Your task to perform on an android device: turn off translation in the chrome app Image 0: 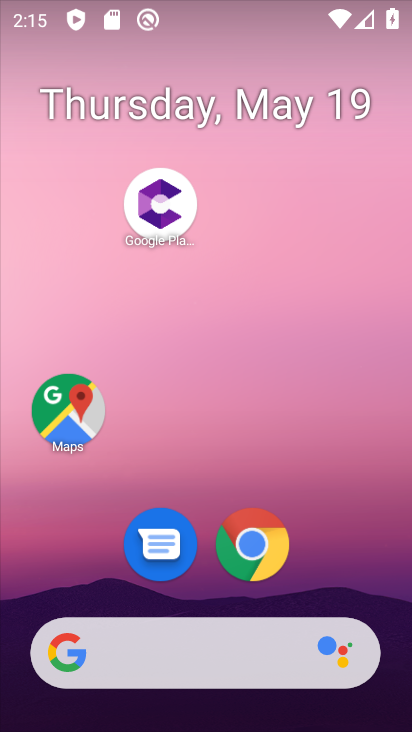
Step 0: drag from (296, 688) to (207, 151)
Your task to perform on an android device: turn off translation in the chrome app Image 1: 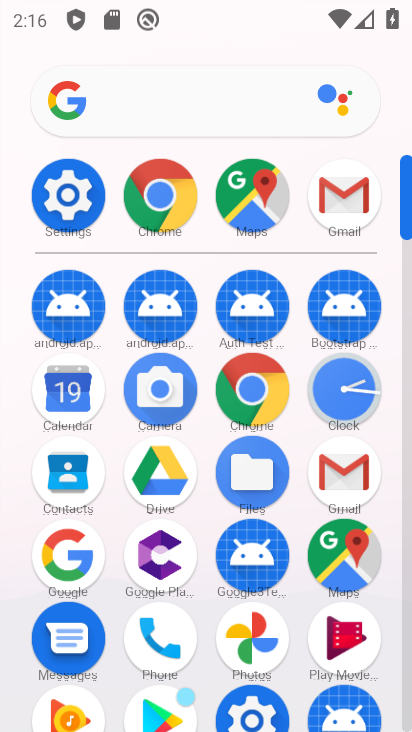
Step 1: click (157, 208)
Your task to perform on an android device: turn off translation in the chrome app Image 2: 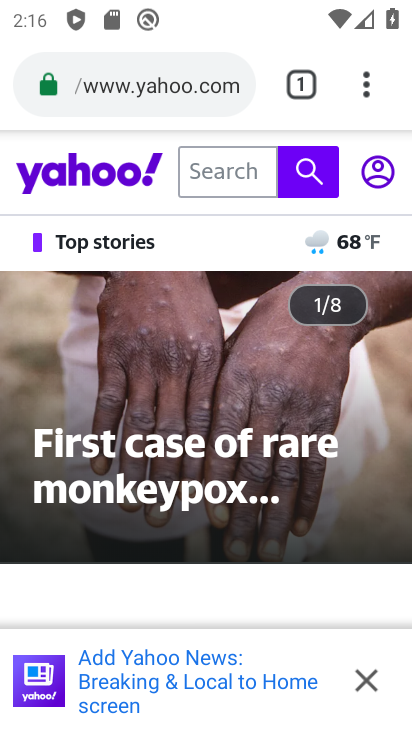
Step 2: click (366, 86)
Your task to perform on an android device: turn off translation in the chrome app Image 3: 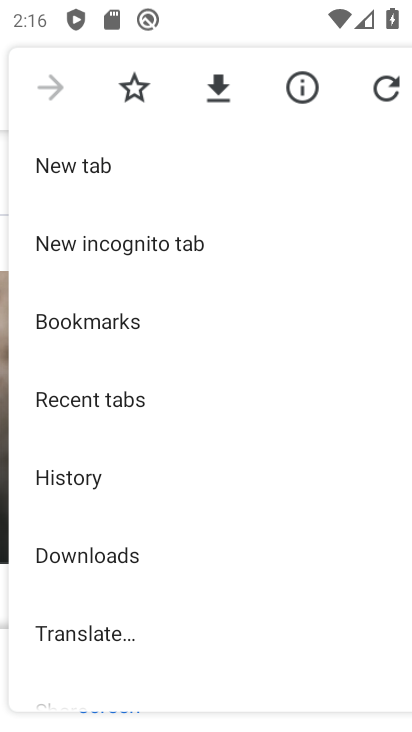
Step 3: drag from (153, 501) to (216, 251)
Your task to perform on an android device: turn off translation in the chrome app Image 4: 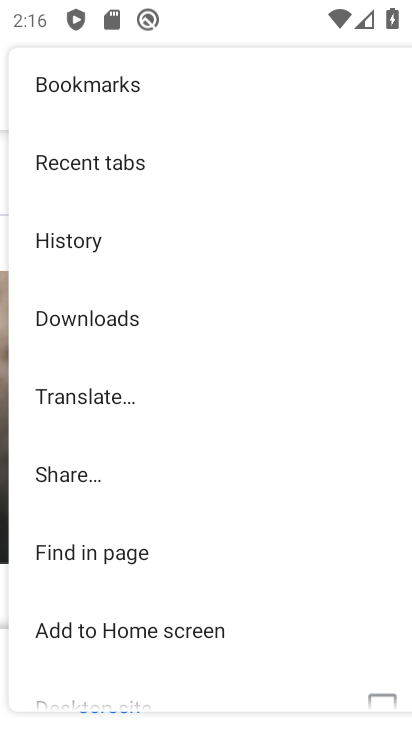
Step 4: drag from (98, 548) to (179, 345)
Your task to perform on an android device: turn off translation in the chrome app Image 5: 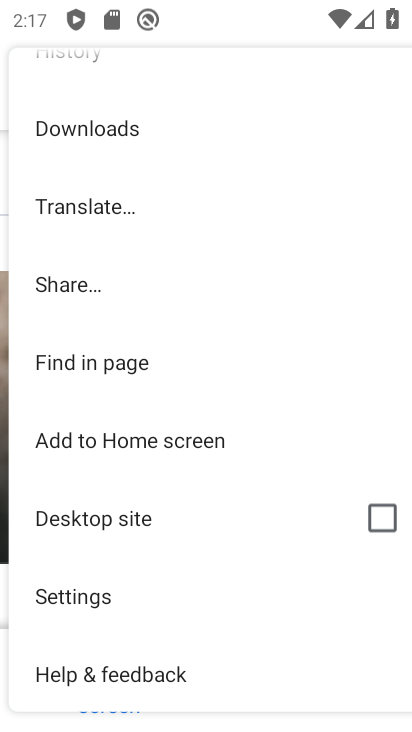
Step 5: click (143, 593)
Your task to perform on an android device: turn off translation in the chrome app Image 6: 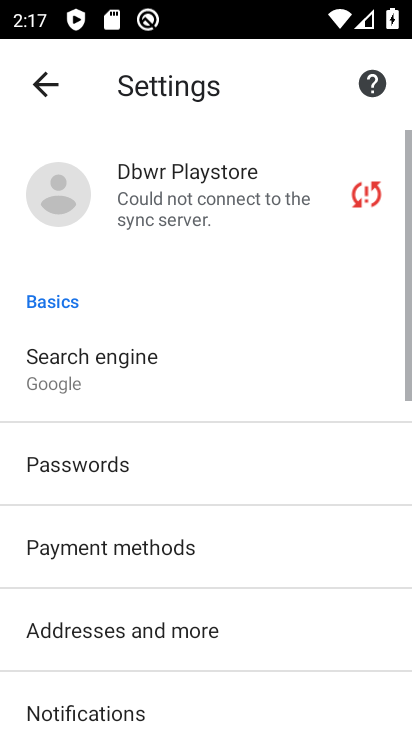
Step 6: drag from (149, 597) to (220, 414)
Your task to perform on an android device: turn off translation in the chrome app Image 7: 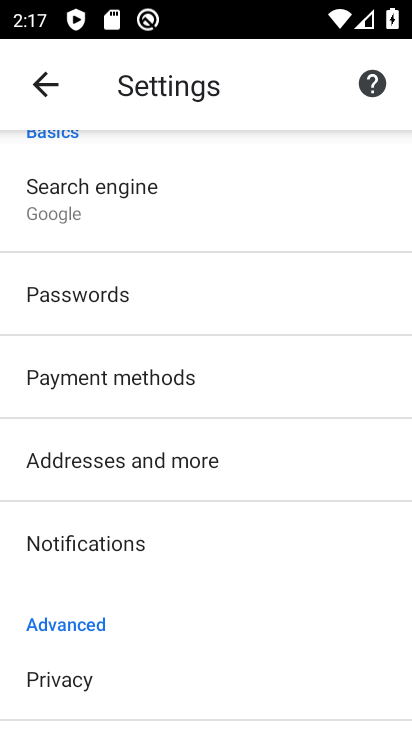
Step 7: drag from (138, 632) to (171, 386)
Your task to perform on an android device: turn off translation in the chrome app Image 8: 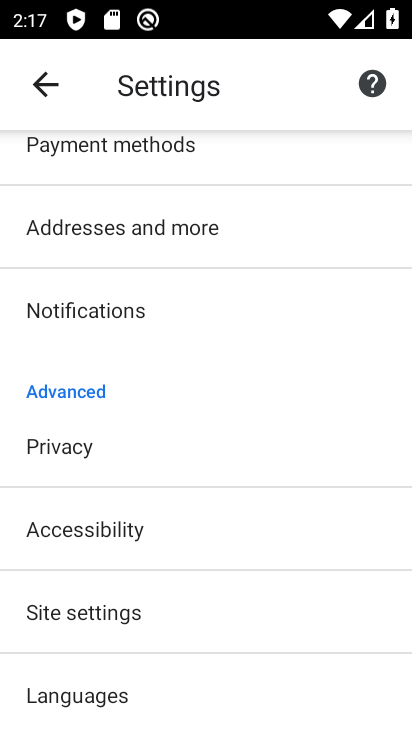
Step 8: drag from (100, 585) to (135, 456)
Your task to perform on an android device: turn off translation in the chrome app Image 9: 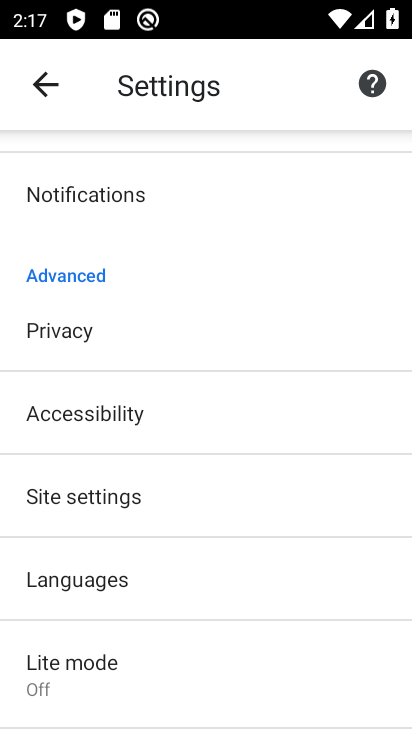
Step 9: click (92, 501)
Your task to perform on an android device: turn off translation in the chrome app Image 10: 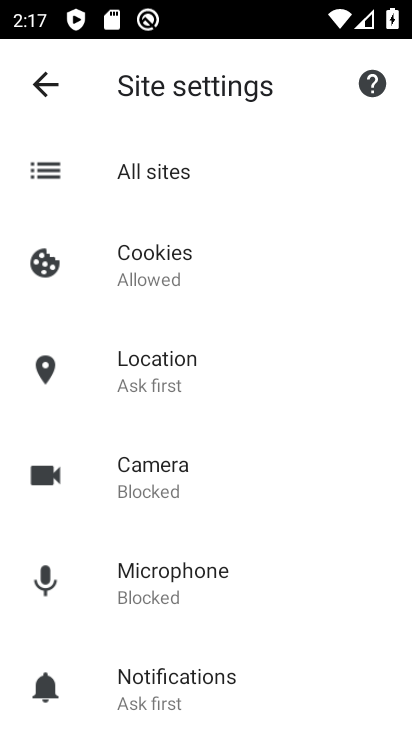
Step 10: drag from (172, 576) to (220, 357)
Your task to perform on an android device: turn off translation in the chrome app Image 11: 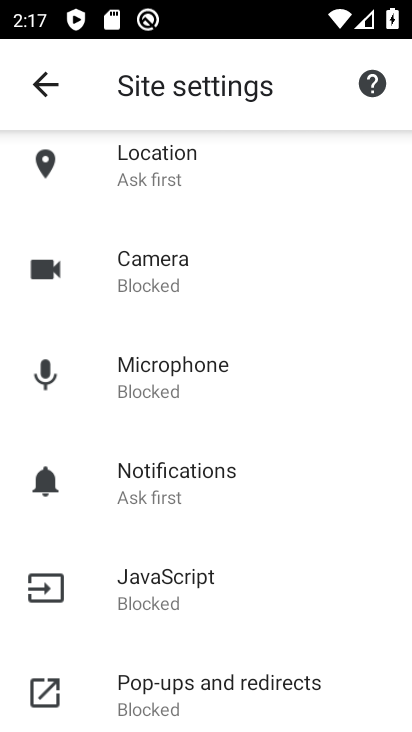
Step 11: drag from (189, 603) to (223, 448)
Your task to perform on an android device: turn off translation in the chrome app Image 12: 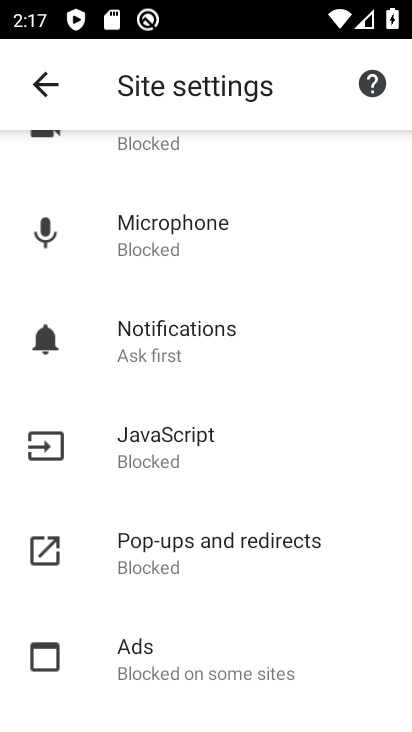
Step 12: drag from (179, 577) to (222, 408)
Your task to perform on an android device: turn off translation in the chrome app Image 13: 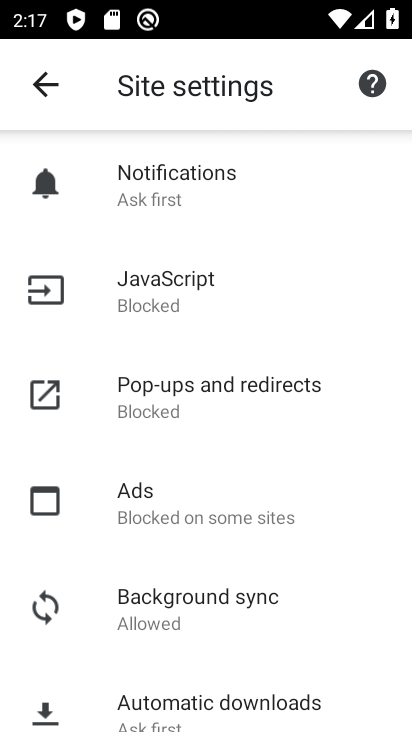
Step 13: drag from (186, 283) to (175, 439)
Your task to perform on an android device: turn off translation in the chrome app Image 14: 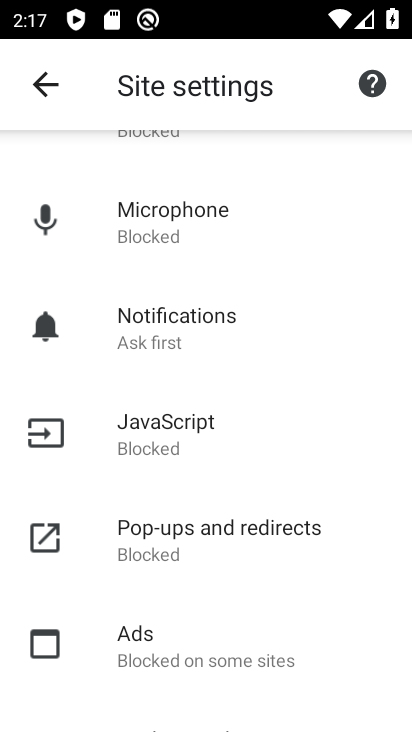
Step 14: click (36, 89)
Your task to perform on an android device: turn off translation in the chrome app Image 15: 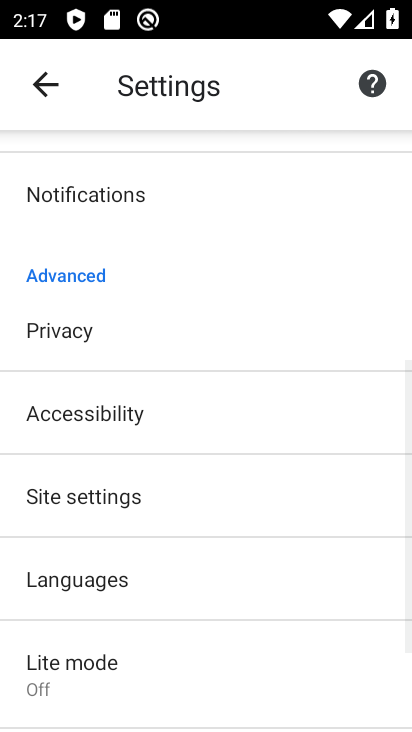
Step 15: click (102, 569)
Your task to perform on an android device: turn off translation in the chrome app Image 16: 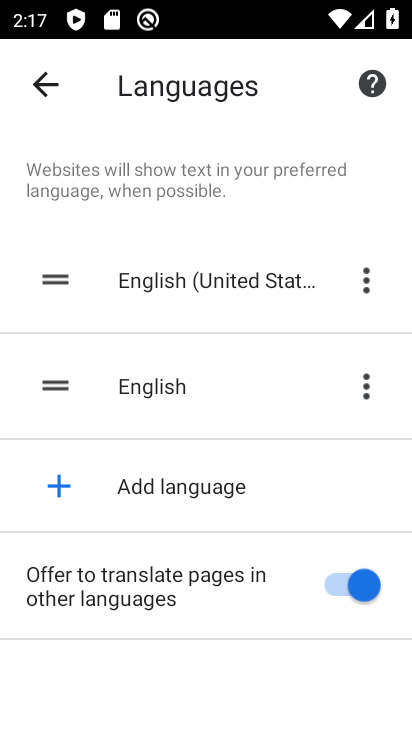
Step 16: click (253, 589)
Your task to perform on an android device: turn off translation in the chrome app Image 17: 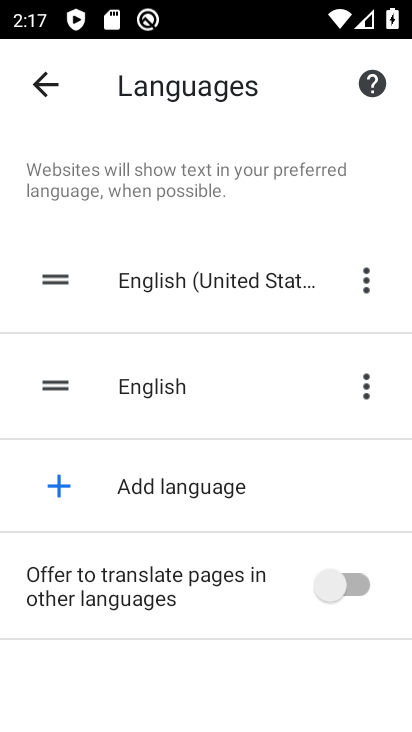
Step 17: task complete